Your task to perform on an android device: Go to Yahoo.com Image 0: 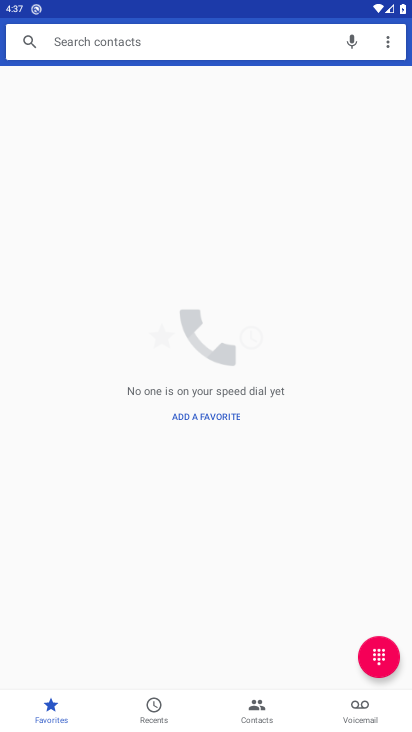
Step 0: press home button
Your task to perform on an android device: Go to Yahoo.com Image 1: 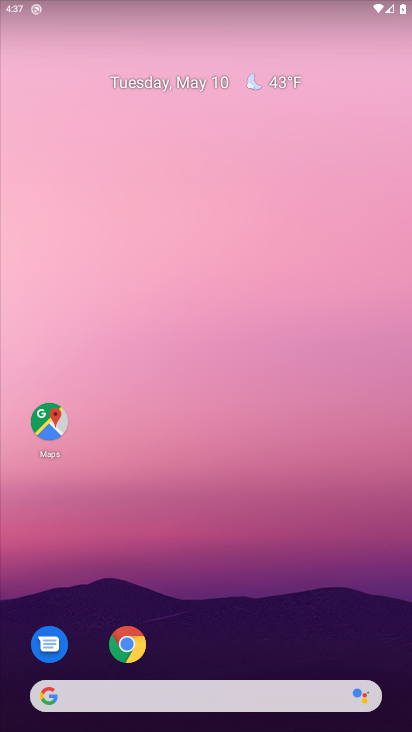
Step 1: click (126, 631)
Your task to perform on an android device: Go to Yahoo.com Image 2: 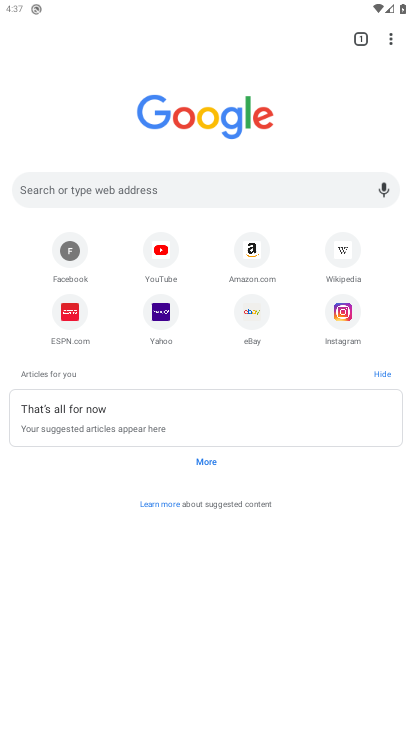
Step 2: click (155, 313)
Your task to perform on an android device: Go to Yahoo.com Image 3: 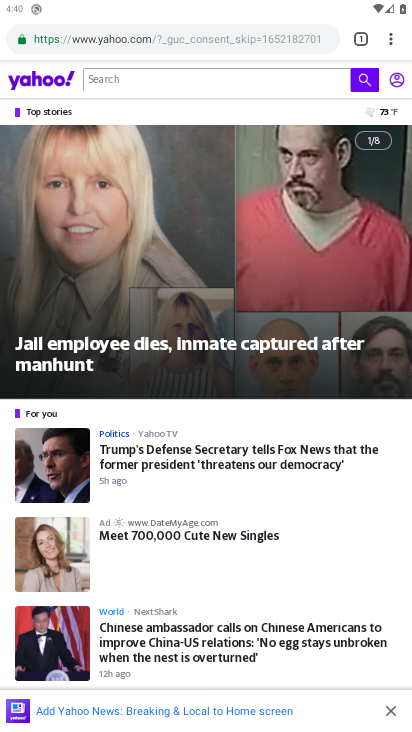
Step 3: task complete